Your task to perform on an android device: toggle show notifications on the lock screen Image 0: 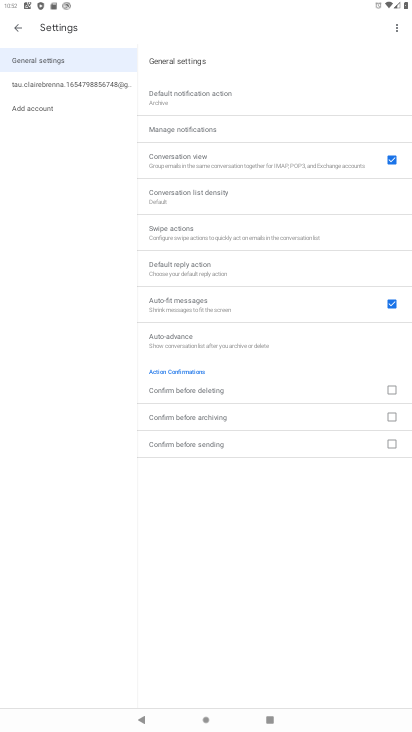
Step 0: press home button
Your task to perform on an android device: toggle show notifications on the lock screen Image 1: 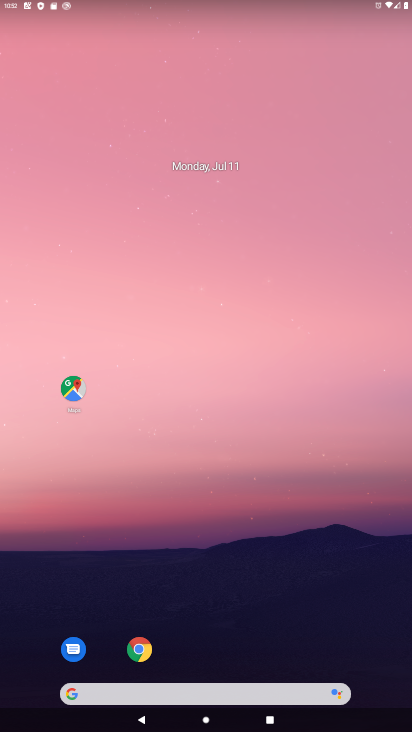
Step 1: drag from (376, 656) to (308, 229)
Your task to perform on an android device: toggle show notifications on the lock screen Image 2: 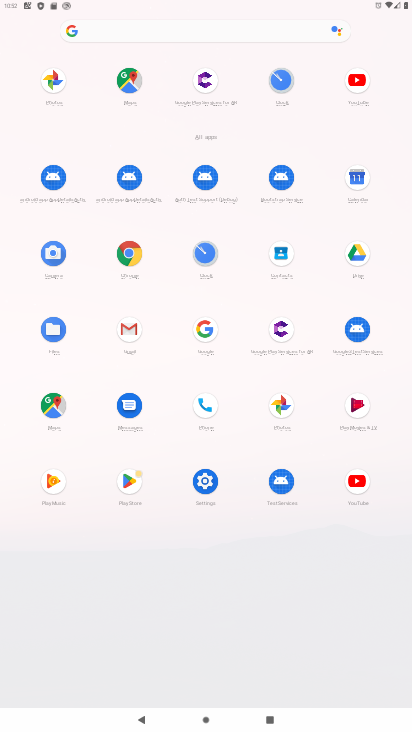
Step 2: click (202, 475)
Your task to perform on an android device: toggle show notifications on the lock screen Image 3: 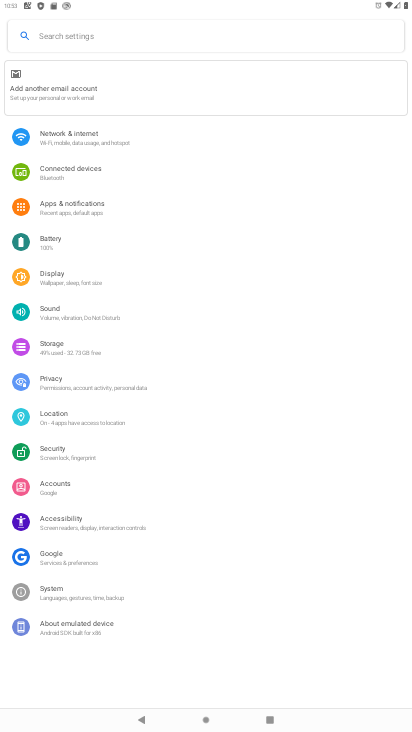
Step 3: click (52, 210)
Your task to perform on an android device: toggle show notifications on the lock screen Image 4: 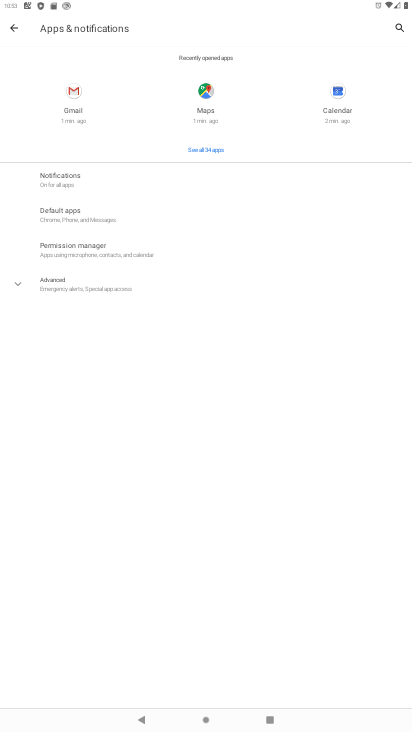
Step 4: click (54, 179)
Your task to perform on an android device: toggle show notifications on the lock screen Image 5: 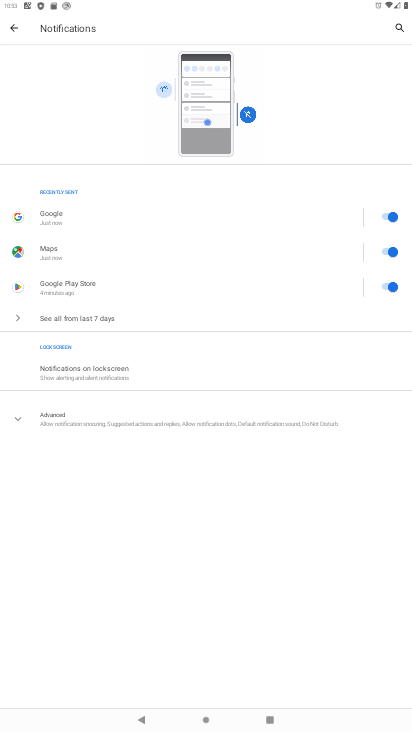
Step 5: click (81, 372)
Your task to perform on an android device: toggle show notifications on the lock screen Image 6: 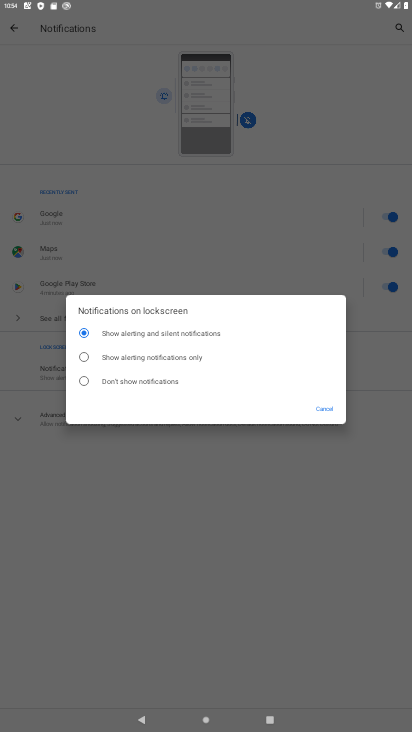
Step 6: click (86, 353)
Your task to perform on an android device: toggle show notifications on the lock screen Image 7: 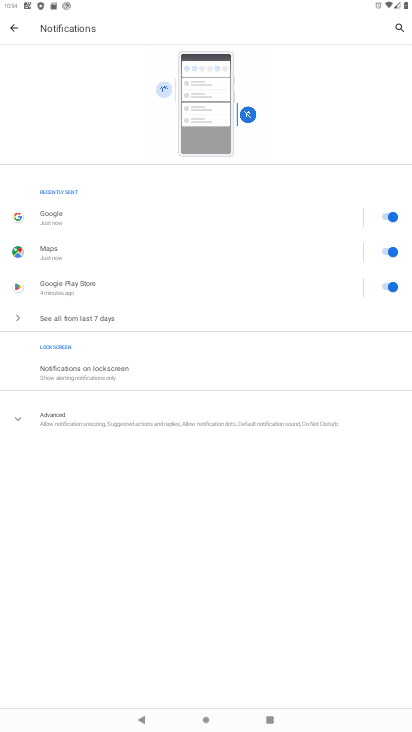
Step 7: task complete